Your task to perform on an android device: turn off smart reply in the gmail app Image 0: 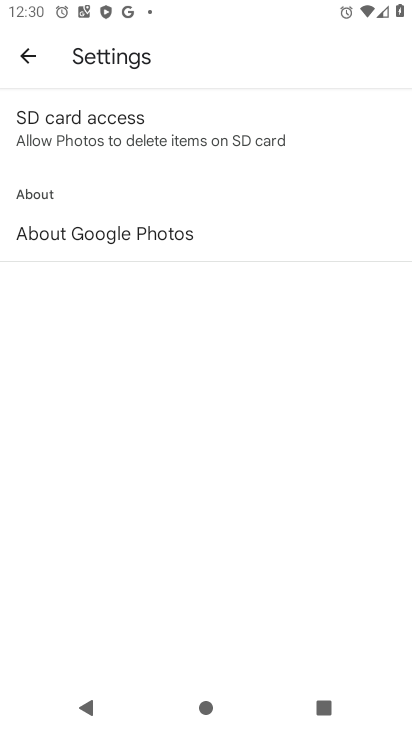
Step 0: press home button
Your task to perform on an android device: turn off smart reply in the gmail app Image 1: 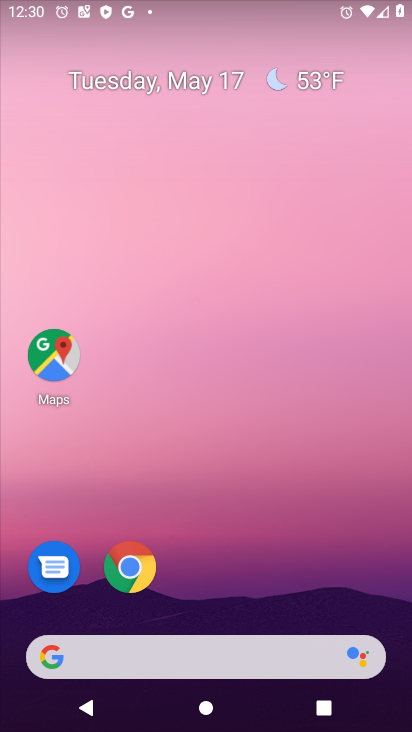
Step 1: drag from (375, 543) to (402, 209)
Your task to perform on an android device: turn off smart reply in the gmail app Image 2: 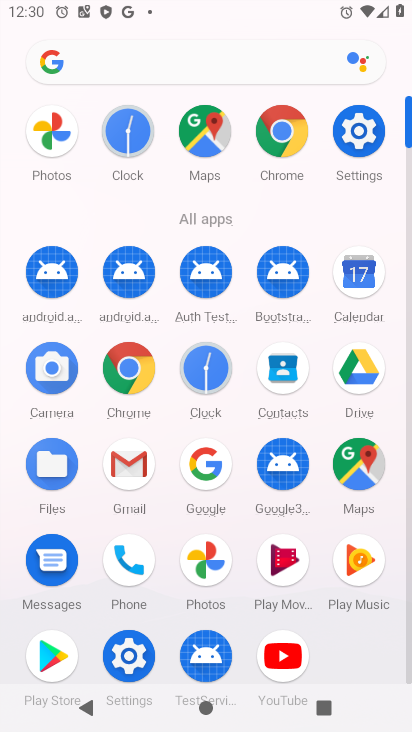
Step 2: click (134, 474)
Your task to perform on an android device: turn off smart reply in the gmail app Image 3: 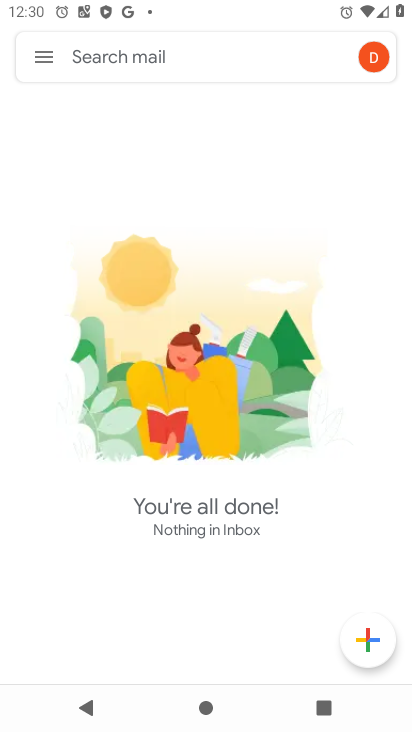
Step 3: click (46, 48)
Your task to perform on an android device: turn off smart reply in the gmail app Image 4: 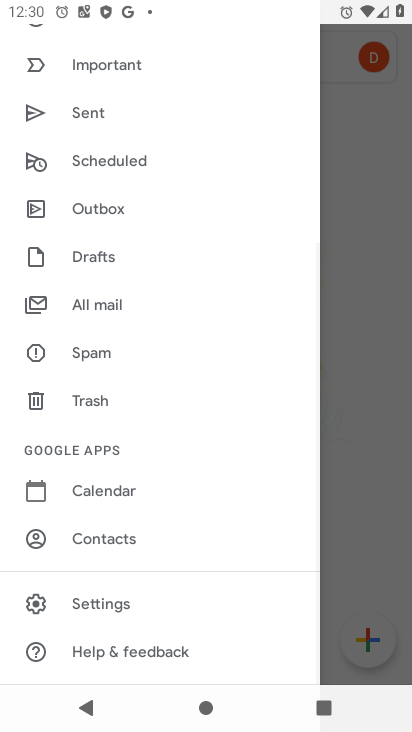
Step 4: drag from (256, 531) to (249, 381)
Your task to perform on an android device: turn off smart reply in the gmail app Image 5: 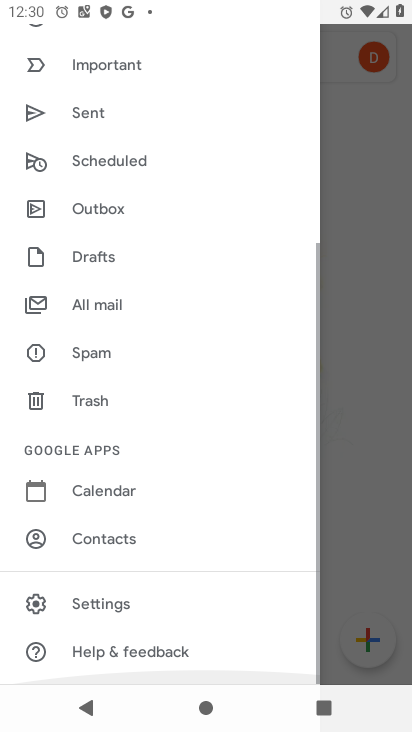
Step 5: drag from (260, 236) to (274, 367)
Your task to perform on an android device: turn off smart reply in the gmail app Image 6: 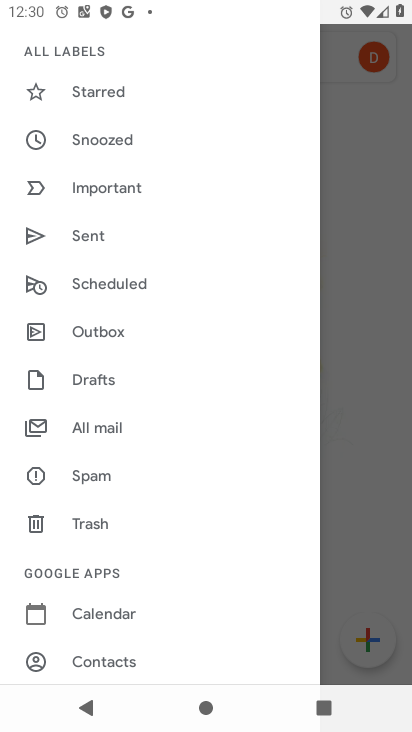
Step 6: drag from (259, 182) to (278, 278)
Your task to perform on an android device: turn off smart reply in the gmail app Image 7: 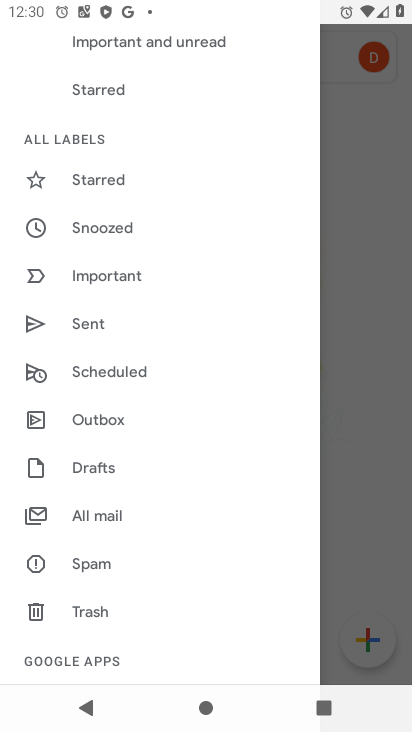
Step 7: drag from (259, 538) to (257, 391)
Your task to perform on an android device: turn off smart reply in the gmail app Image 8: 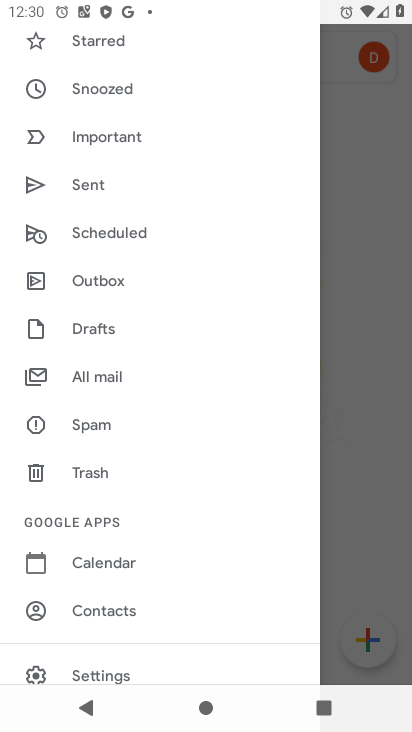
Step 8: drag from (264, 572) to (253, 414)
Your task to perform on an android device: turn off smart reply in the gmail app Image 9: 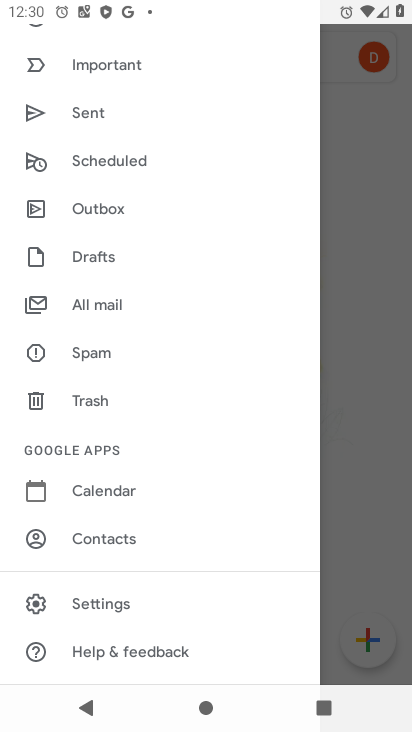
Step 9: click (104, 595)
Your task to perform on an android device: turn off smart reply in the gmail app Image 10: 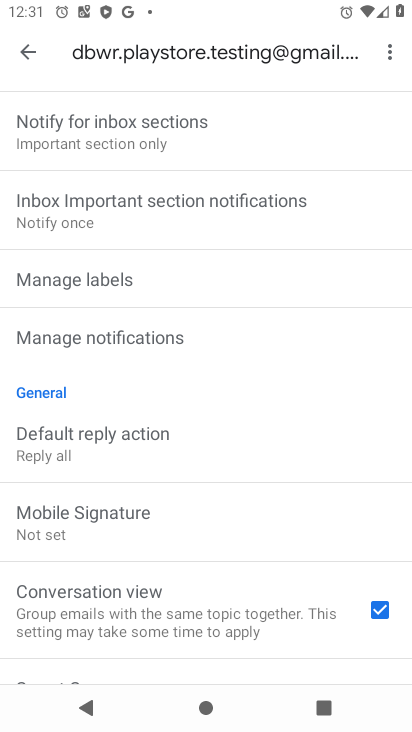
Step 10: drag from (284, 611) to (286, 482)
Your task to perform on an android device: turn off smart reply in the gmail app Image 11: 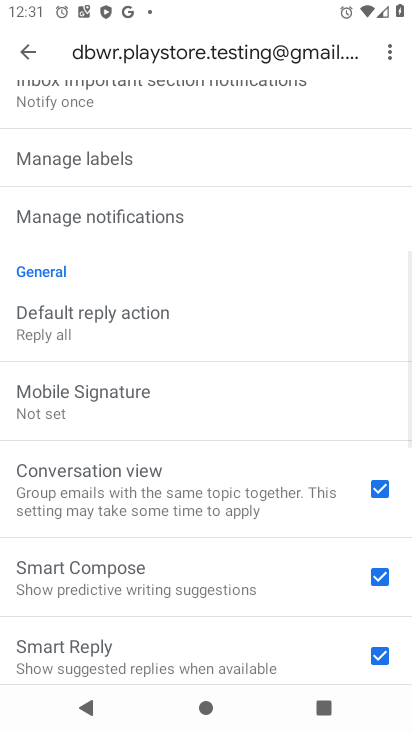
Step 11: drag from (283, 621) to (292, 457)
Your task to perform on an android device: turn off smart reply in the gmail app Image 12: 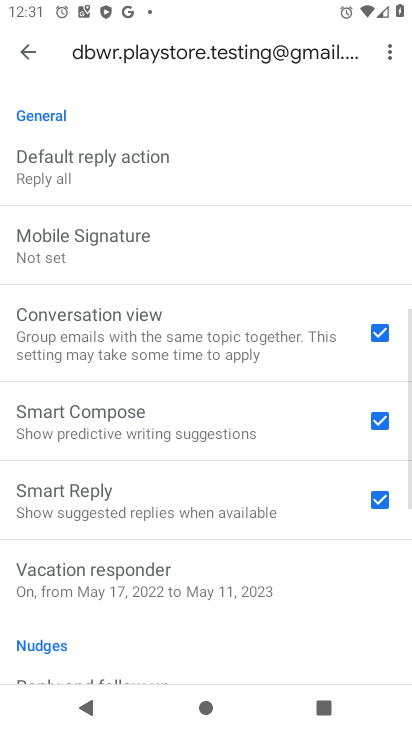
Step 12: drag from (287, 610) to (291, 505)
Your task to perform on an android device: turn off smart reply in the gmail app Image 13: 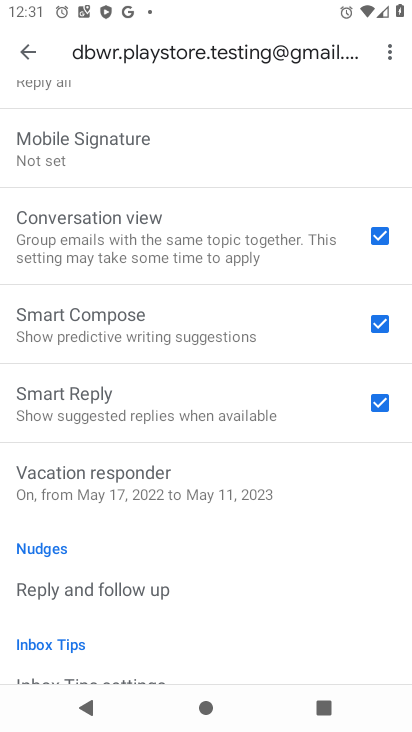
Step 13: click (377, 403)
Your task to perform on an android device: turn off smart reply in the gmail app Image 14: 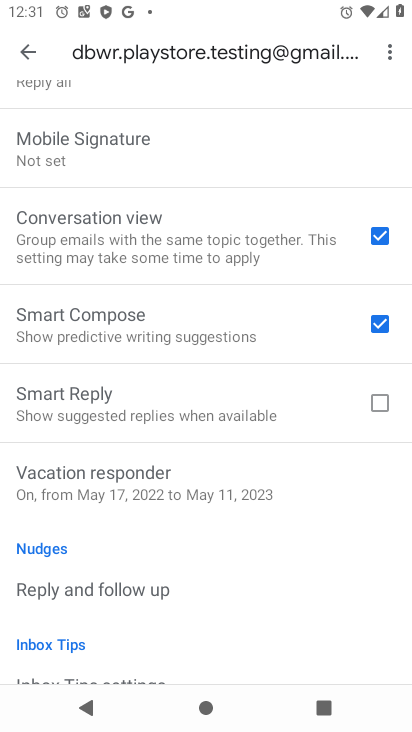
Step 14: task complete